Your task to perform on an android device: change keyboard looks Image 0: 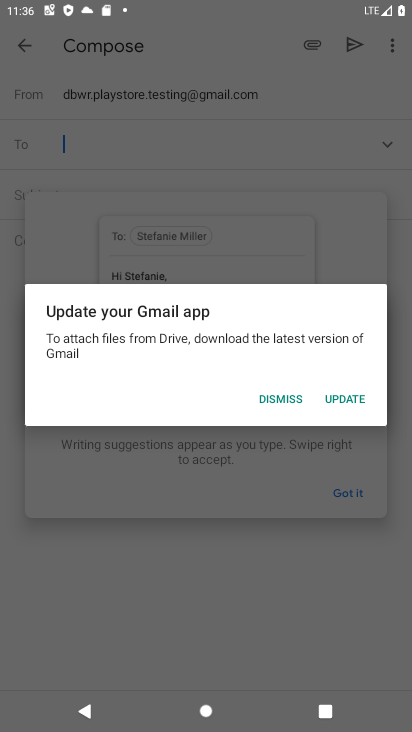
Step 0: press home button
Your task to perform on an android device: change keyboard looks Image 1: 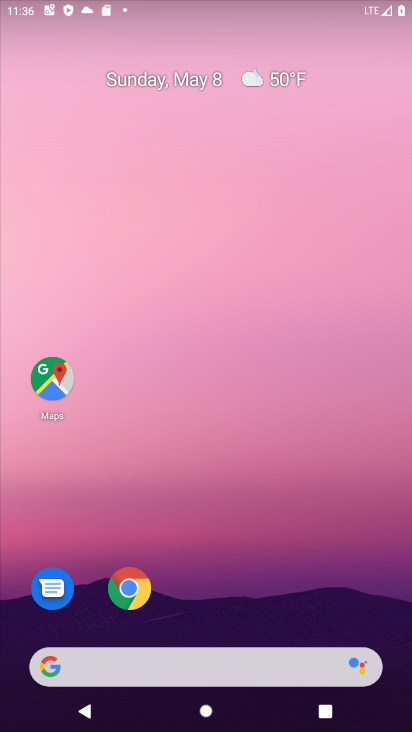
Step 1: drag from (289, 558) to (201, 3)
Your task to perform on an android device: change keyboard looks Image 2: 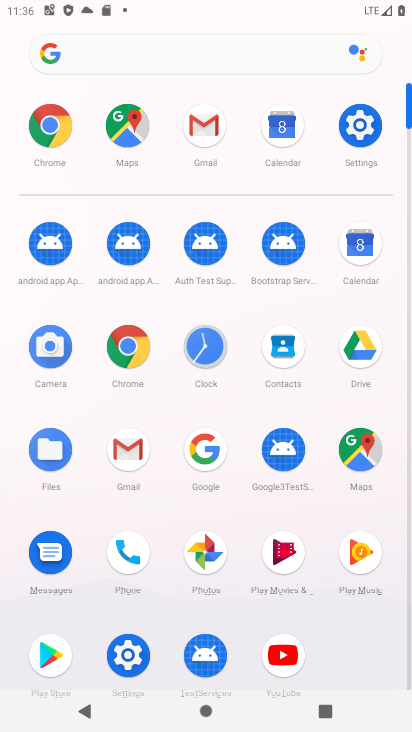
Step 2: click (365, 121)
Your task to perform on an android device: change keyboard looks Image 3: 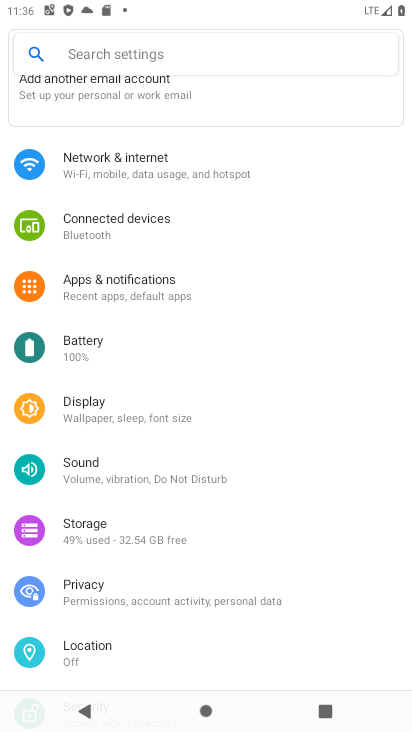
Step 3: drag from (199, 577) to (206, 188)
Your task to perform on an android device: change keyboard looks Image 4: 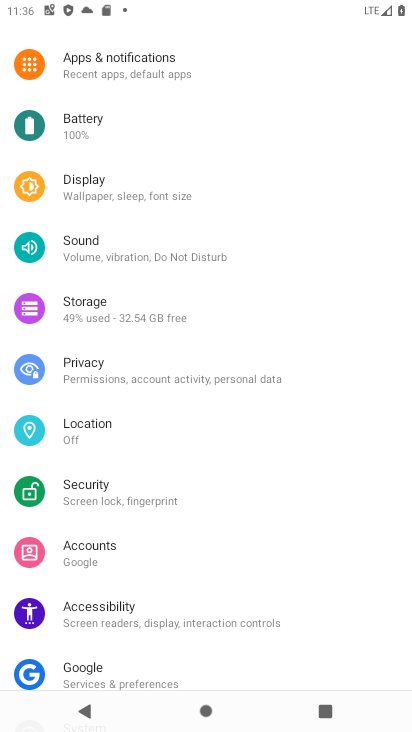
Step 4: drag from (215, 540) to (244, 99)
Your task to perform on an android device: change keyboard looks Image 5: 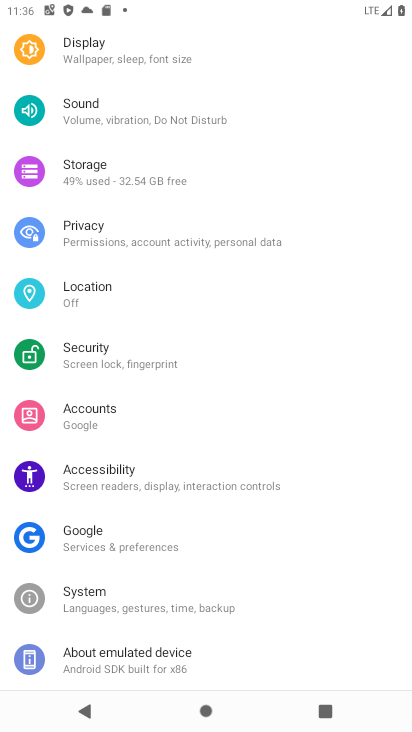
Step 5: click (170, 596)
Your task to perform on an android device: change keyboard looks Image 6: 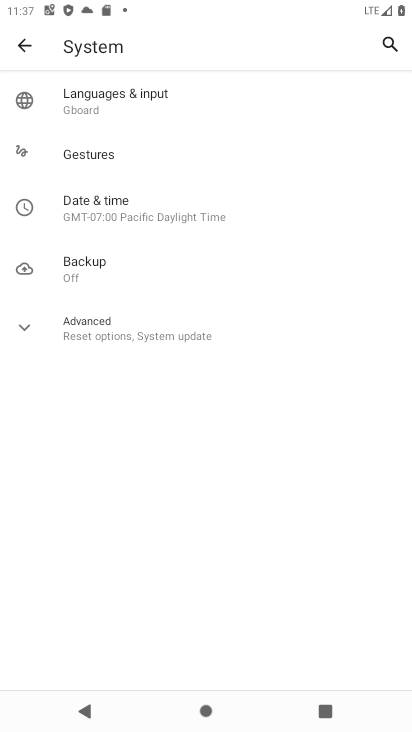
Step 6: click (131, 105)
Your task to perform on an android device: change keyboard looks Image 7: 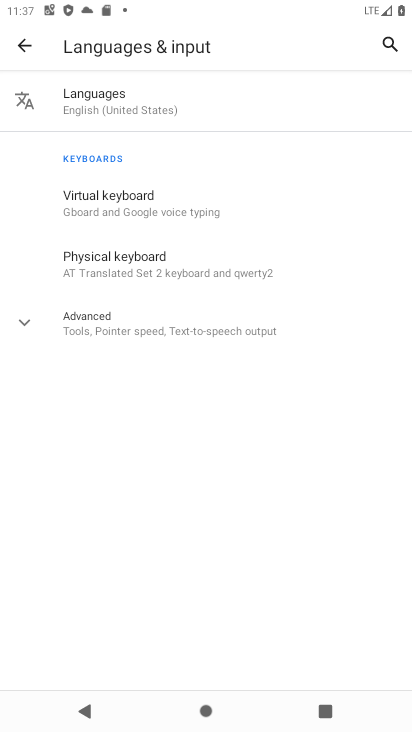
Step 7: click (110, 202)
Your task to perform on an android device: change keyboard looks Image 8: 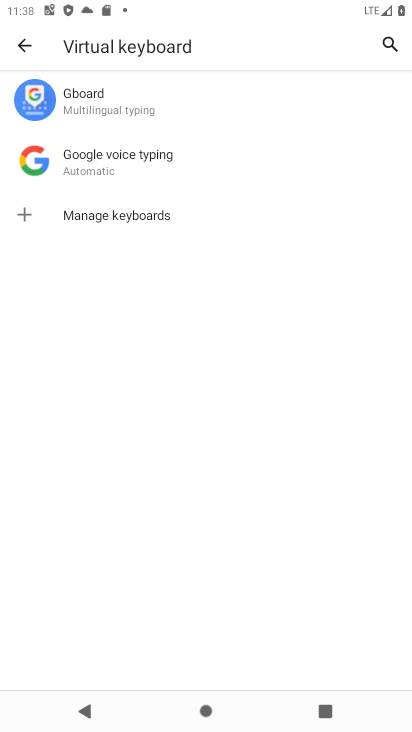
Step 8: click (122, 109)
Your task to perform on an android device: change keyboard looks Image 9: 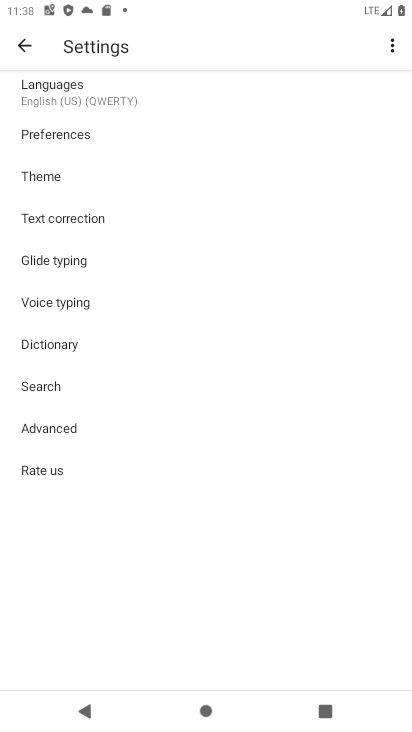
Step 9: click (84, 184)
Your task to perform on an android device: change keyboard looks Image 10: 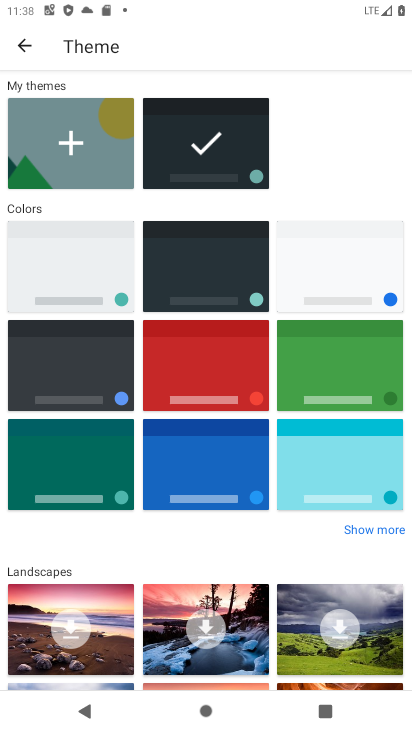
Step 10: click (216, 366)
Your task to perform on an android device: change keyboard looks Image 11: 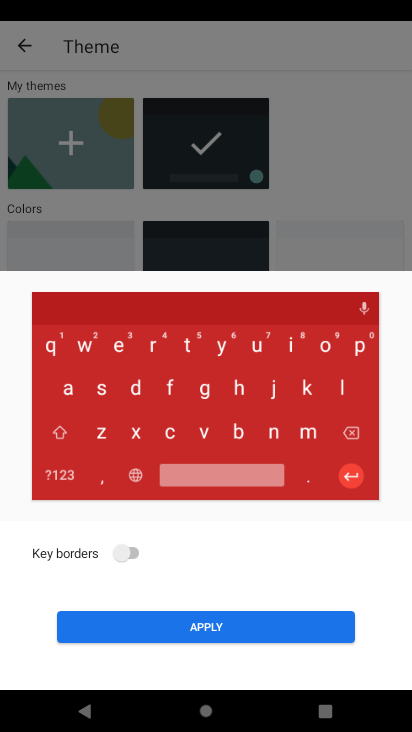
Step 11: click (251, 624)
Your task to perform on an android device: change keyboard looks Image 12: 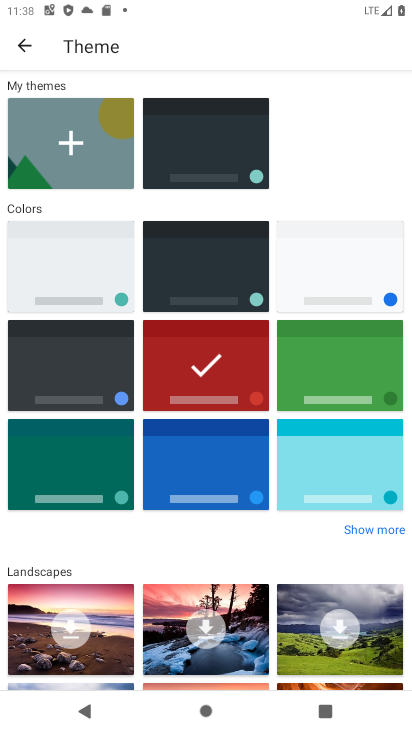
Step 12: task complete